Your task to perform on an android device: Nike Air Max 2020 shoes on Nike.com Image 0: 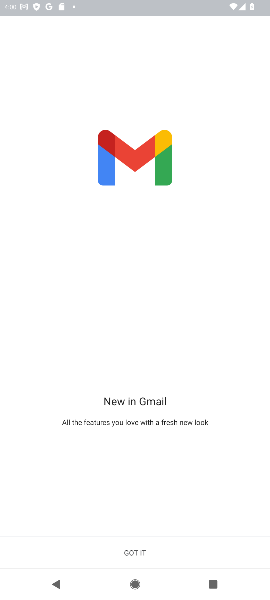
Step 0: press home button
Your task to perform on an android device: Nike Air Max 2020 shoes on Nike.com Image 1: 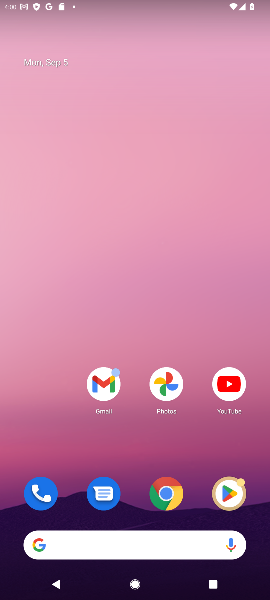
Step 1: drag from (214, 441) to (178, 88)
Your task to perform on an android device: Nike Air Max 2020 shoes on Nike.com Image 2: 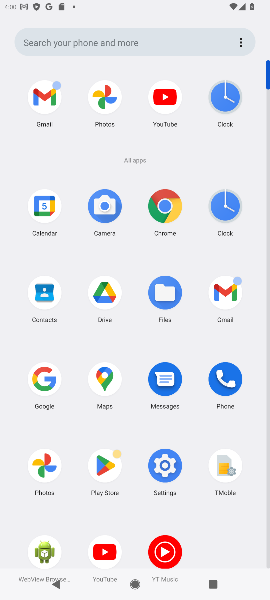
Step 2: click (164, 210)
Your task to perform on an android device: Nike Air Max 2020 shoes on Nike.com Image 3: 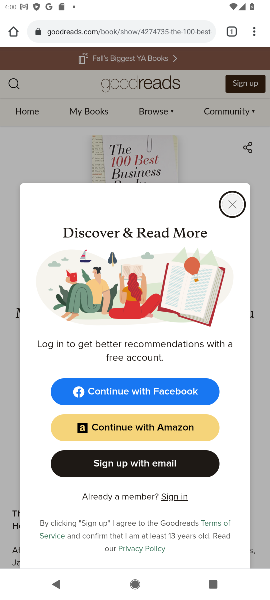
Step 3: click (165, 29)
Your task to perform on an android device: Nike Air Max 2020 shoes on Nike.com Image 4: 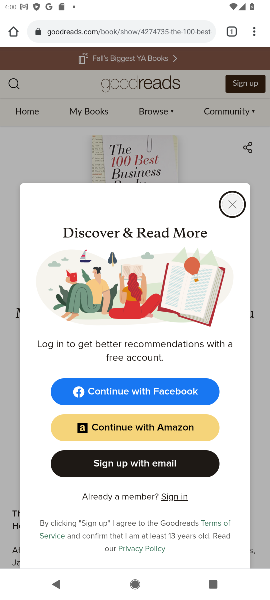
Step 4: click (166, 29)
Your task to perform on an android device: Nike Air Max 2020 shoes on Nike.com Image 5: 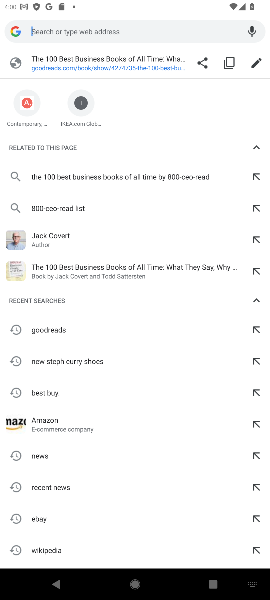
Step 5: type " Nike.com"
Your task to perform on an android device: Nike Air Max 2020 shoes on Nike.com Image 6: 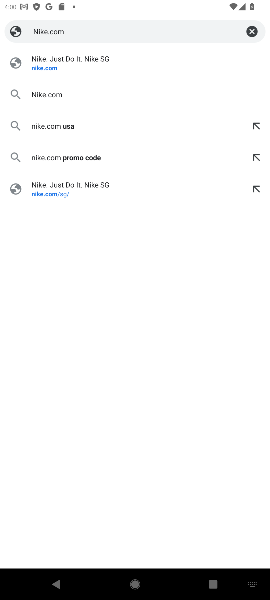
Step 6: click (48, 68)
Your task to perform on an android device: Nike Air Max 2020 shoes on Nike.com Image 7: 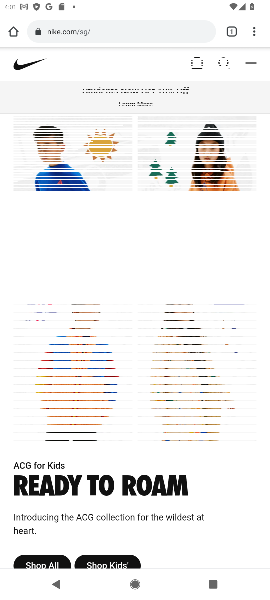
Step 7: click (226, 61)
Your task to perform on an android device: Nike Air Max 2020 shoes on Nike.com Image 8: 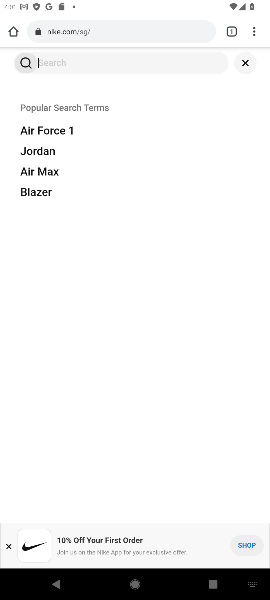
Step 8: click (112, 61)
Your task to perform on an android device: Nike Air Max 2020 shoes on Nike.com Image 9: 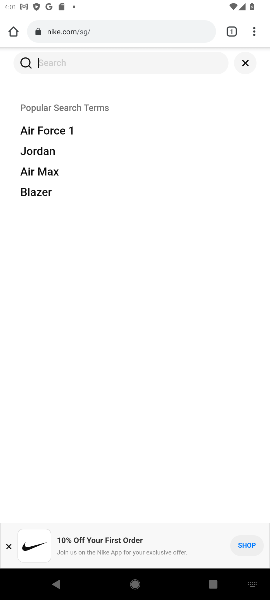
Step 9: type "Nike Air Max 2020 shoes "
Your task to perform on an android device: Nike Air Max 2020 shoes on Nike.com Image 10: 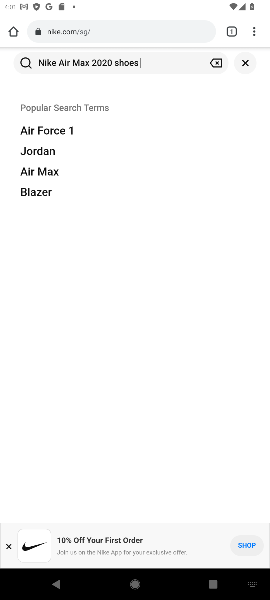
Step 10: click (70, 61)
Your task to perform on an android device: Nike Air Max 2020 shoes on Nike.com Image 11: 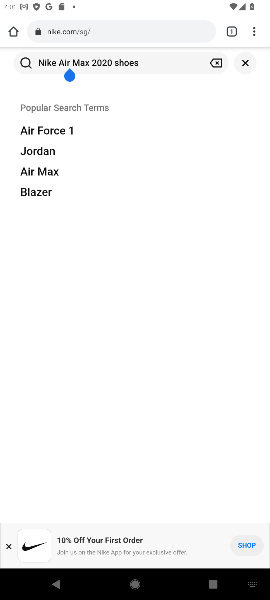
Step 11: task complete